Your task to perform on an android device: Go to notification settings Image 0: 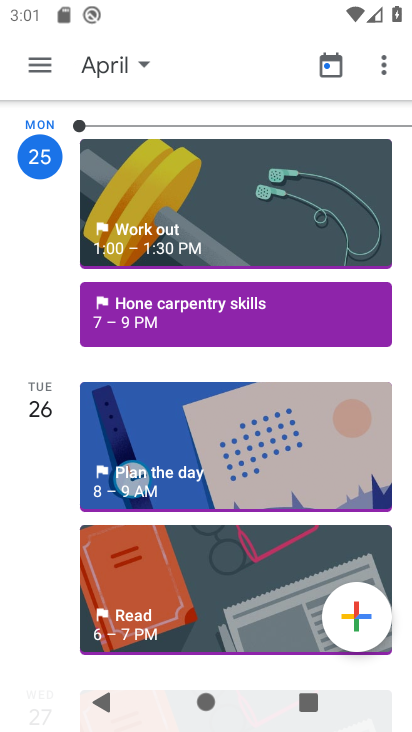
Step 0: press home button
Your task to perform on an android device: Go to notification settings Image 1: 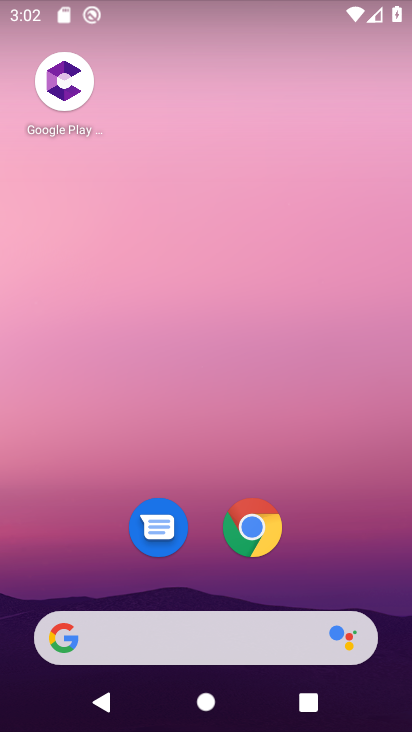
Step 1: drag from (379, 537) to (326, 89)
Your task to perform on an android device: Go to notification settings Image 2: 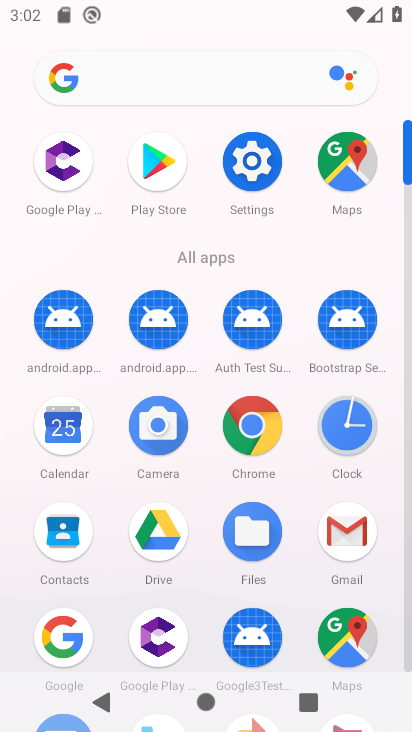
Step 2: click (406, 653)
Your task to perform on an android device: Go to notification settings Image 3: 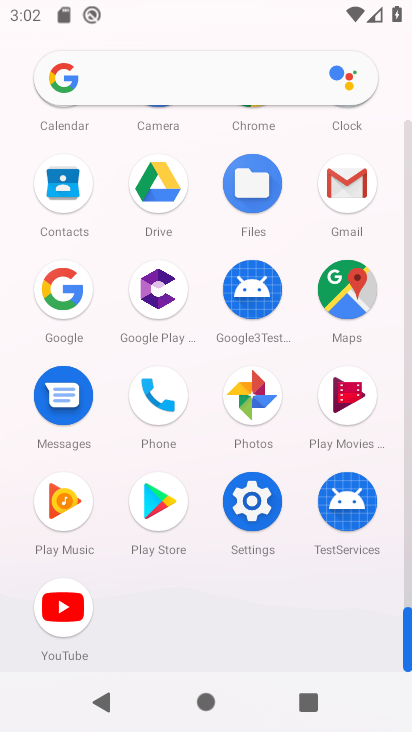
Step 3: click (248, 498)
Your task to perform on an android device: Go to notification settings Image 4: 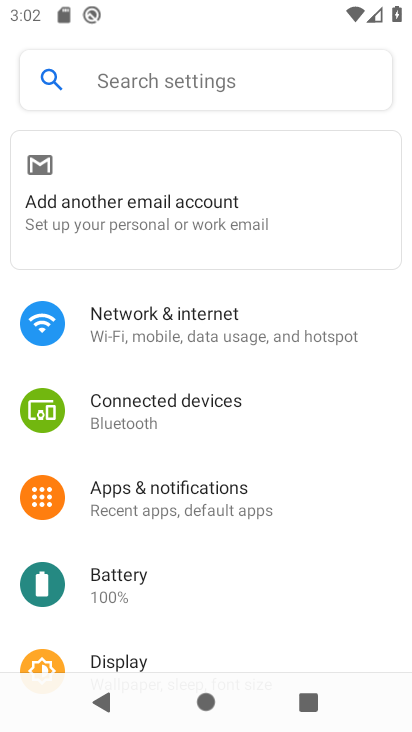
Step 4: click (143, 487)
Your task to perform on an android device: Go to notification settings Image 5: 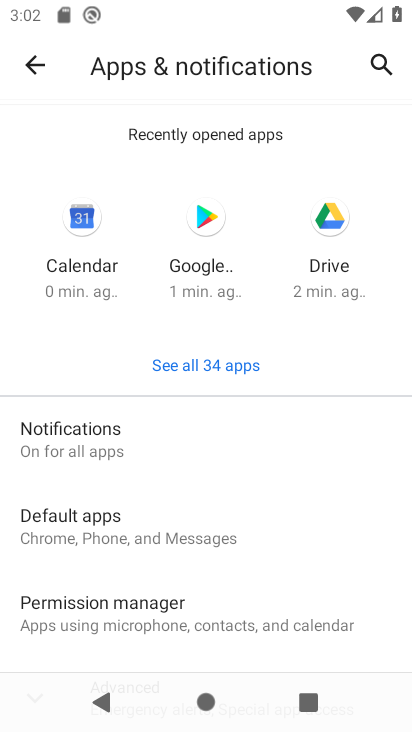
Step 5: click (56, 436)
Your task to perform on an android device: Go to notification settings Image 6: 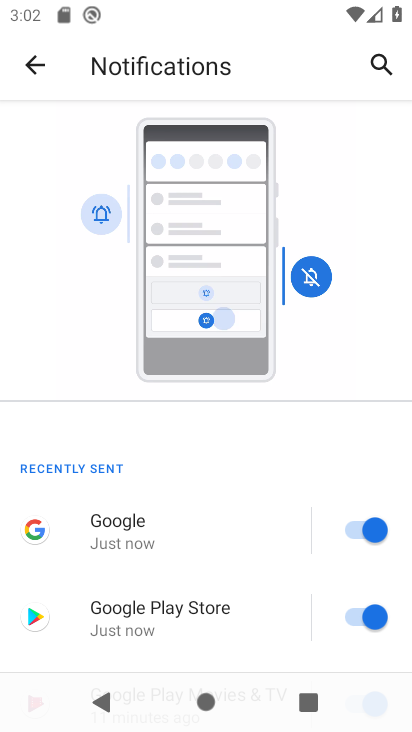
Step 6: drag from (301, 628) to (252, 100)
Your task to perform on an android device: Go to notification settings Image 7: 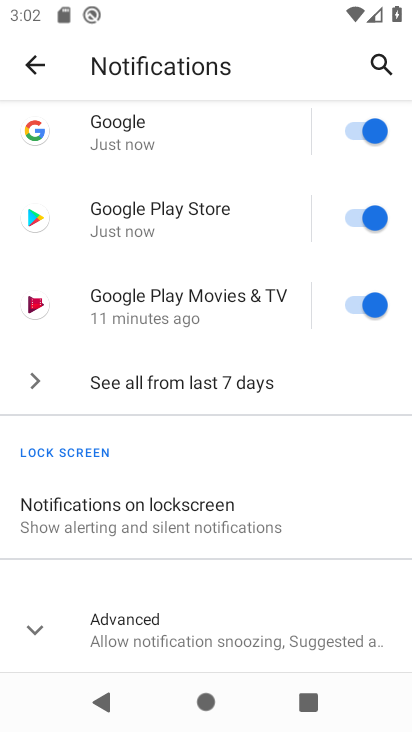
Step 7: click (35, 629)
Your task to perform on an android device: Go to notification settings Image 8: 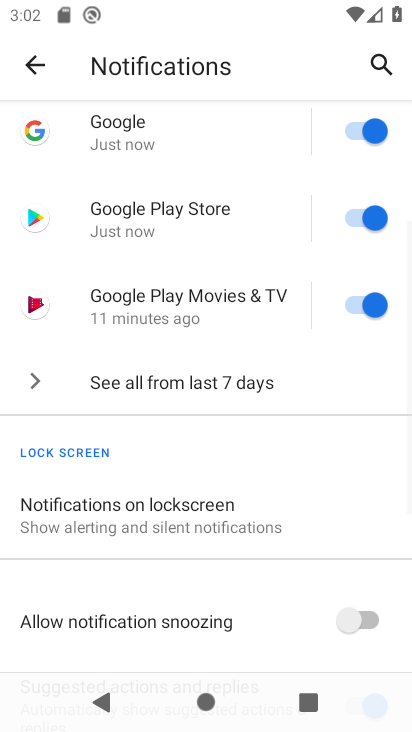
Step 8: task complete